Your task to perform on an android device: set the stopwatch Image 0: 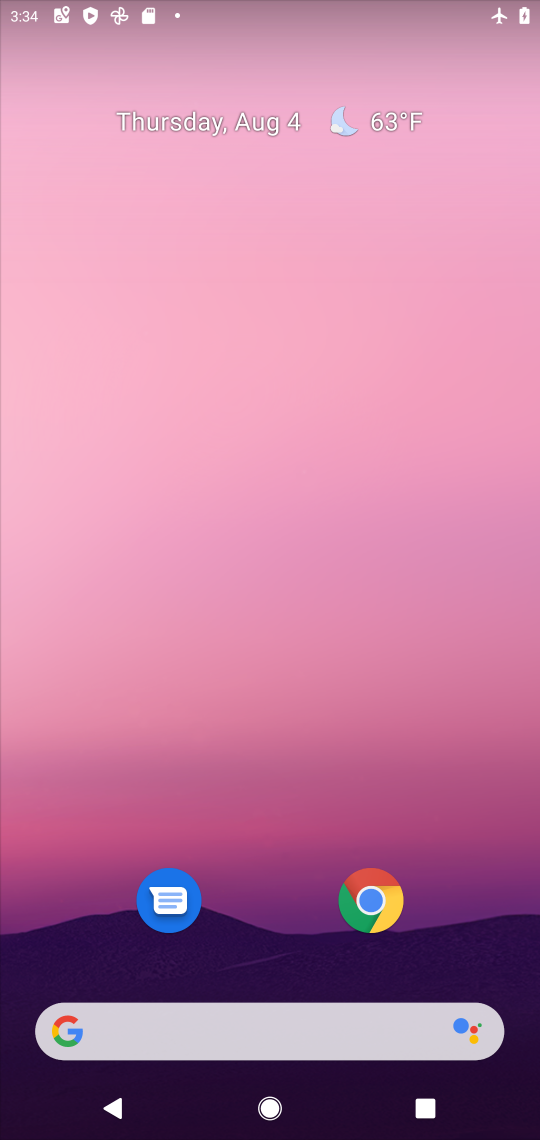
Step 0: drag from (498, 898) to (317, 293)
Your task to perform on an android device: set the stopwatch Image 1: 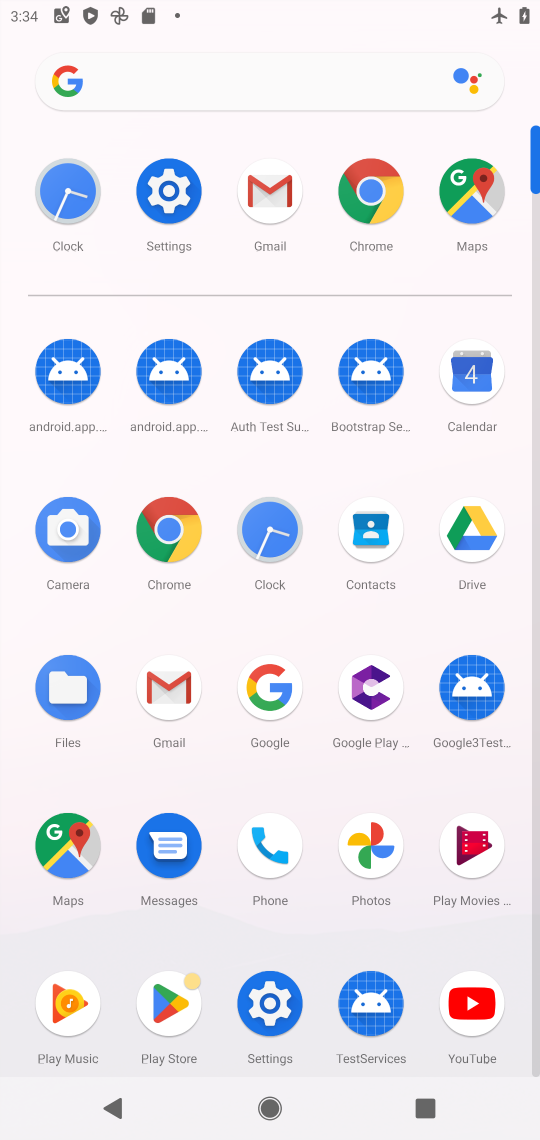
Step 1: click (74, 186)
Your task to perform on an android device: set the stopwatch Image 2: 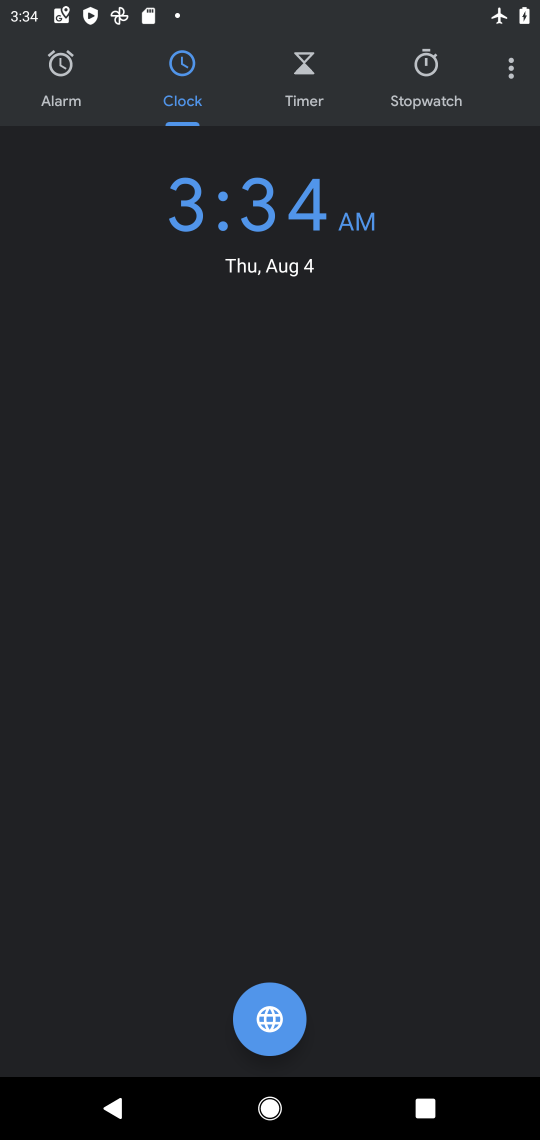
Step 2: click (423, 77)
Your task to perform on an android device: set the stopwatch Image 3: 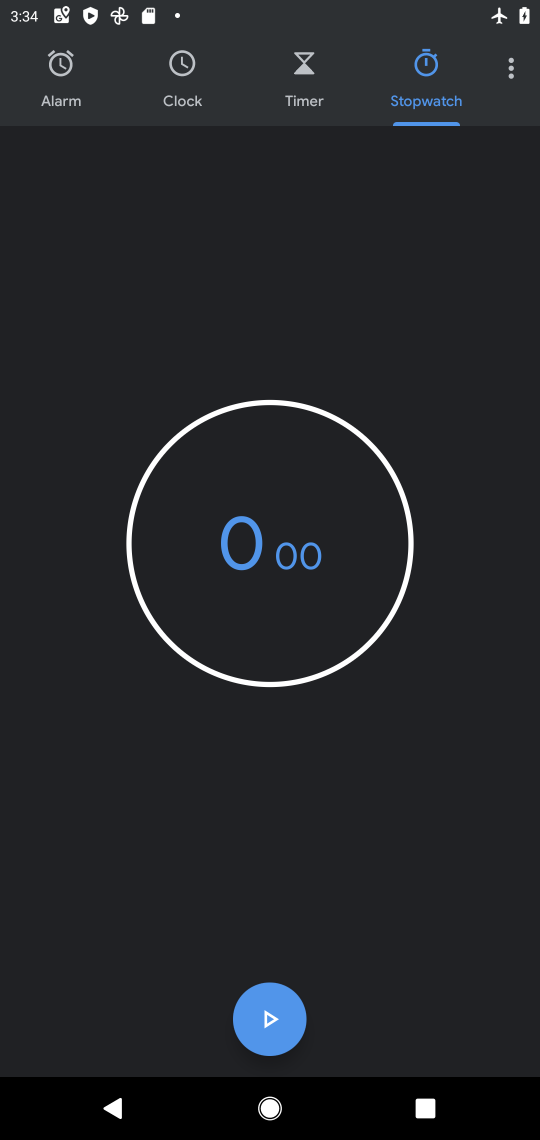
Step 3: click (271, 1032)
Your task to perform on an android device: set the stopwatch Image 4: 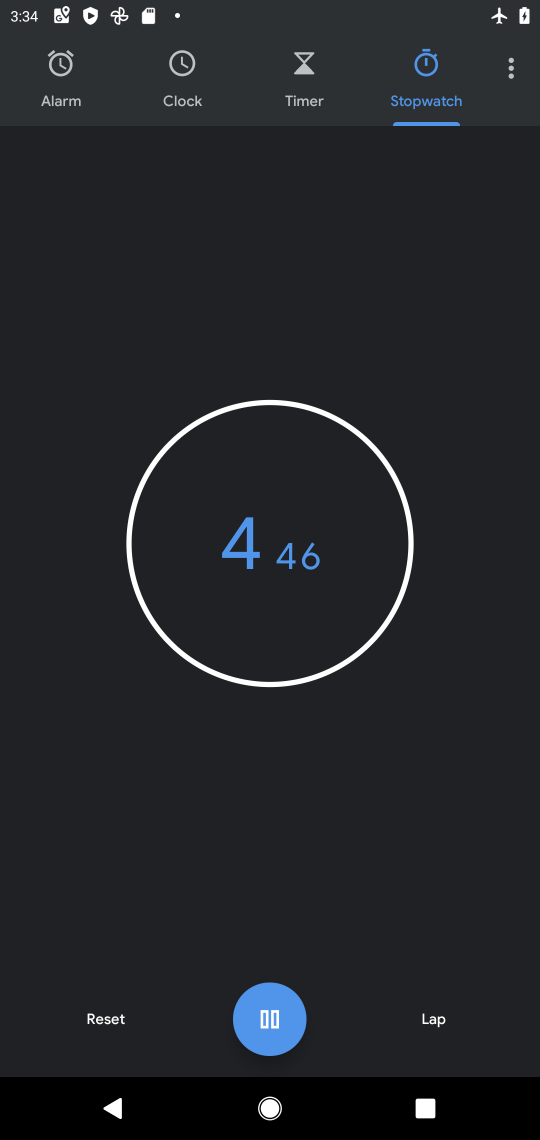
Step 4: task complete